Your task to perform on an android device: clear all cookies in the chrome app Image 0: 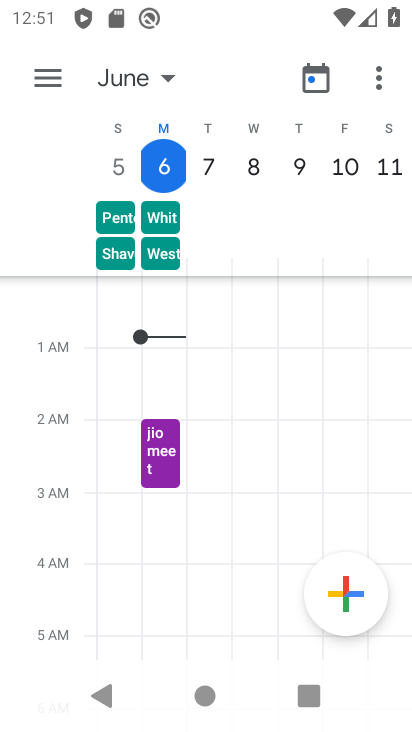
Step 0: press home button
Your task to perform on an android device: clear all cookies in the chrome app Image 1: 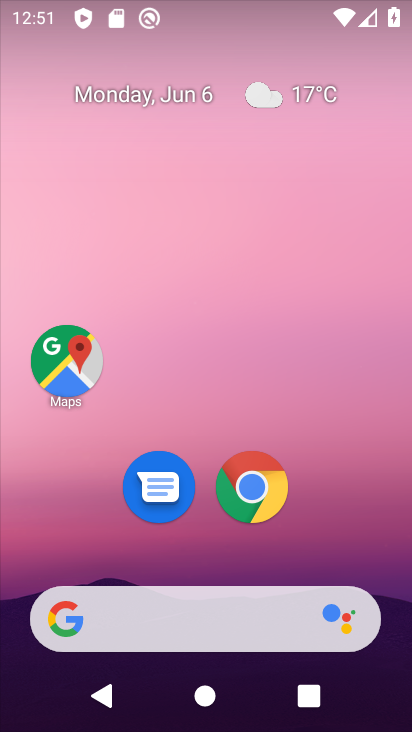
Step 1: click (271, 501)
Your task to perform on an android device: clear all cookies in the chrome app Image 2: 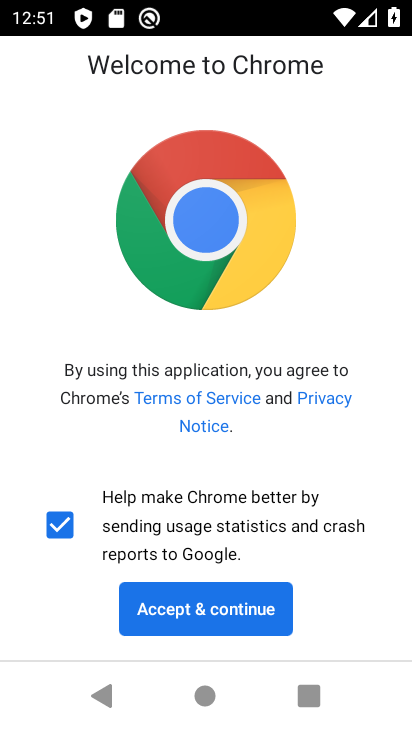
Step 2: click (254, 624)
Your task to perform on an android device: clear all cookies in the chrome app Image 3: 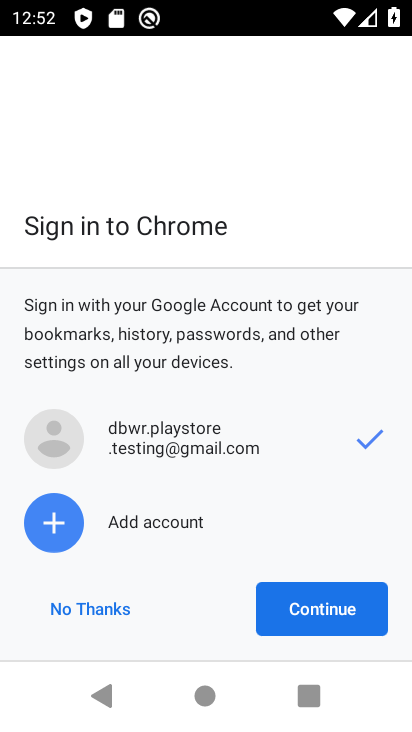
Step 3: click (353, 624)
Your task to perform on an android device: clear all cookies in the chrome app Image 4: 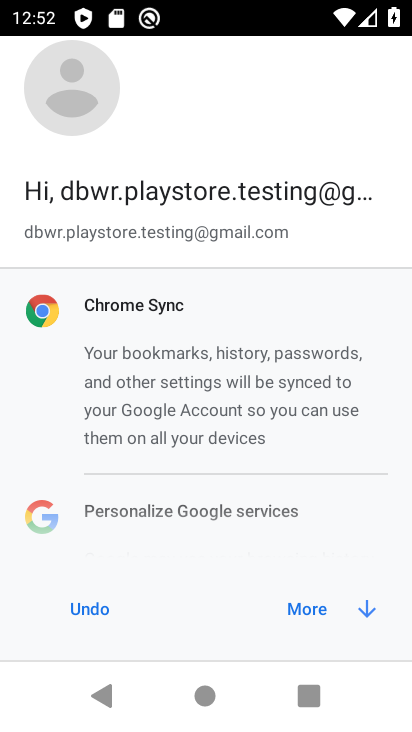
Step 4: click (336, 621)
Your task to perform on an android device: clear all cookies in the chrome app Image 5: 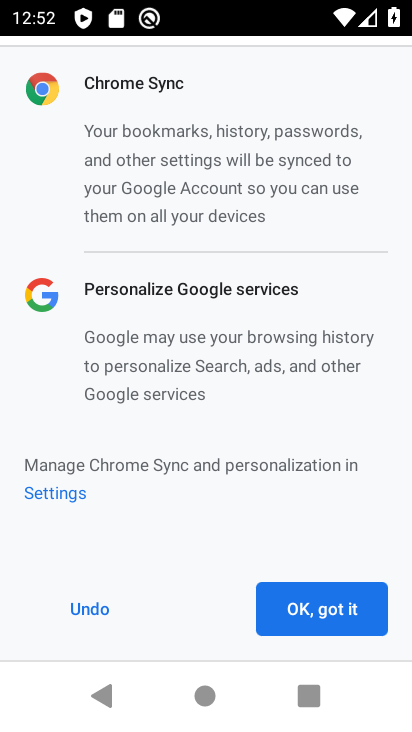
Step 5: click (336, 617)
Your task to perform on an android device: clear all cookies in the chrome app Image 6: 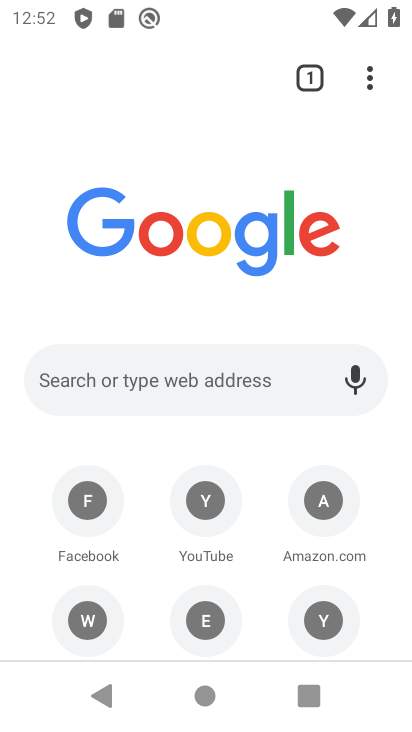
Step 6: drag from (380, 90) to (243, 567)
Your task to perform on an android device: clear all cookies in the chrome app Image 7: 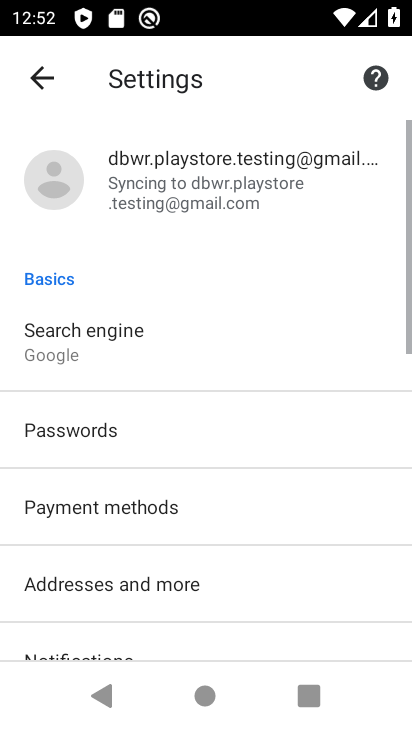
Step 7: drag from (204, 576) to (295, 267)
Your task to perform on an android device: clear all cookies in the chrome app Image 8: 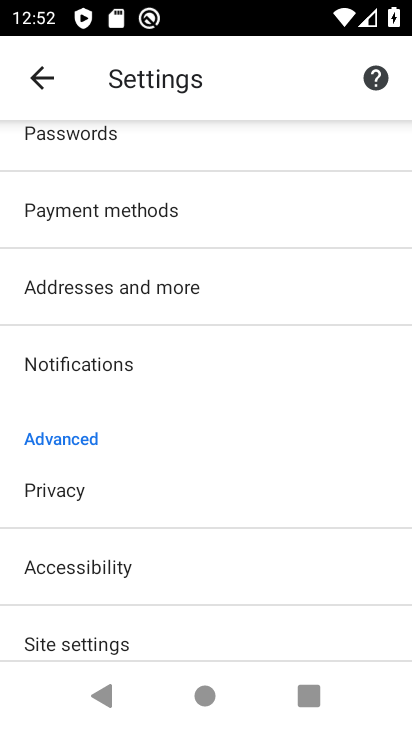
Step 8: click (100, 490)
Your task to perform on an android device: clear all cookies in the chrome app Image 9: 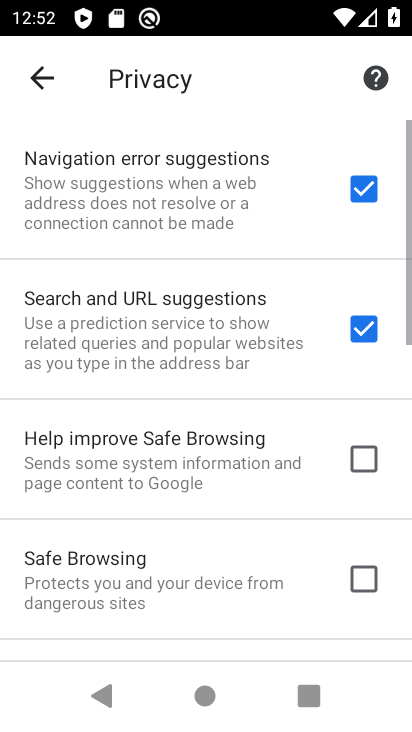
Step 9: drag from (141, 510) to (318, 0)
Your task to perform on an android device: clear all cookies in the chrome app Image 10: 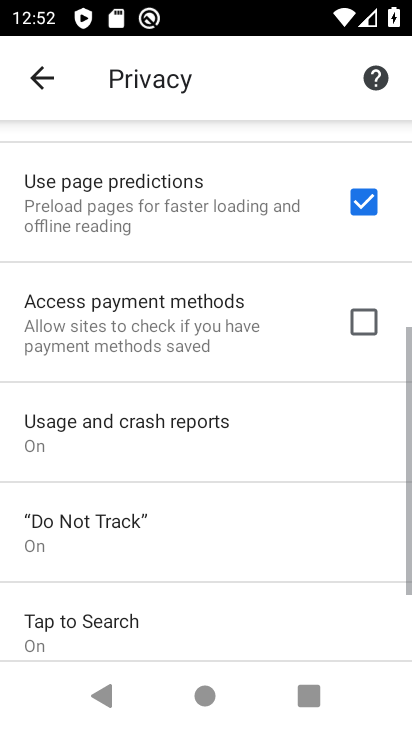
Step 10: drag from (199, 600) to (292, 183)
Your task to perform on an android device: clear all cookies in the chrome app Image 11: 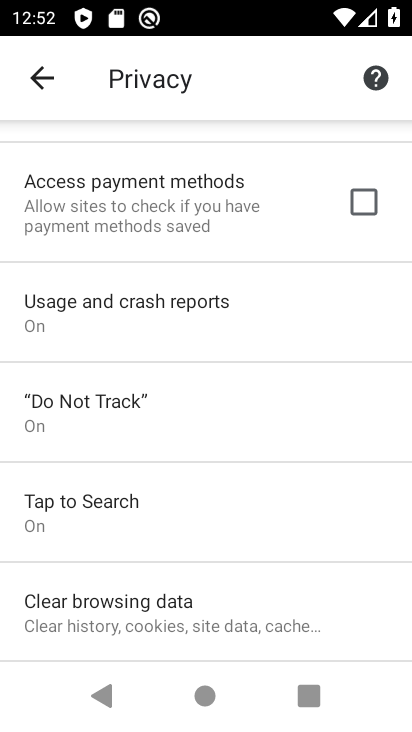
Step 11: click (201, 608)
Your task to perform on an android device: clear all cookies in the chrome app Image 12: 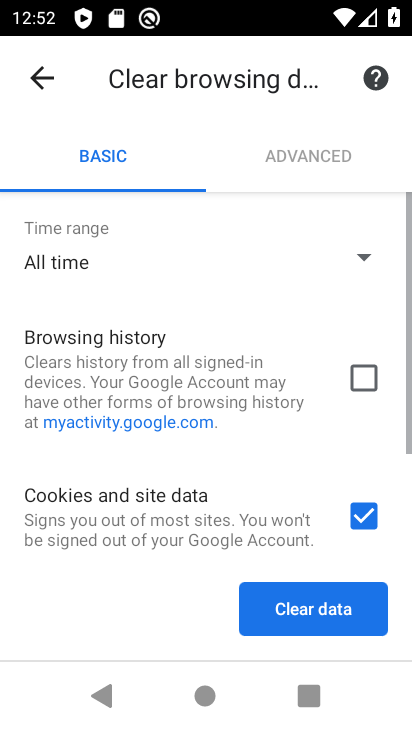
Step 12: drag from (167, 467) to (267, 148)
Your task to perform on an android device: clear all cookies in the chrome app Image 13: 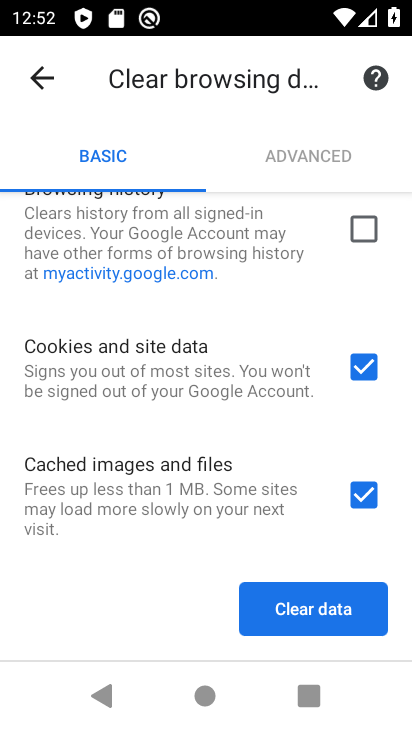
Step 13: click (355, 487)
Your task to perform on an android device: clear all cookies in the chrome app Image 14: 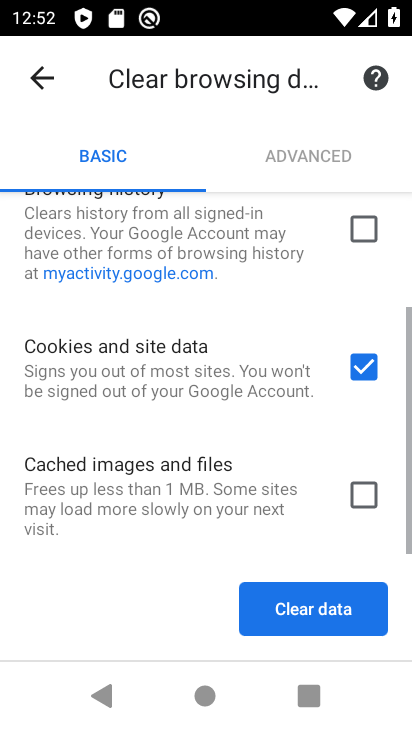
Step 14: click (297, 622)
Your task to perform on an android device: clear all cookies in the chrome app Image 15: 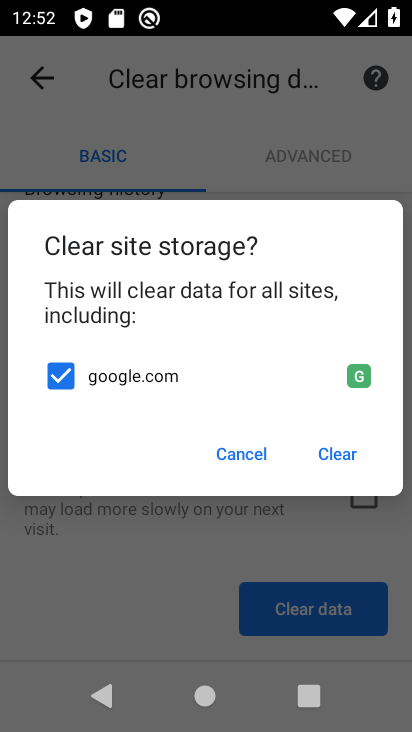
Step 15: click (345, 454)
Your task to perform on an android device: clear all cookies in the chrome app Image 16: 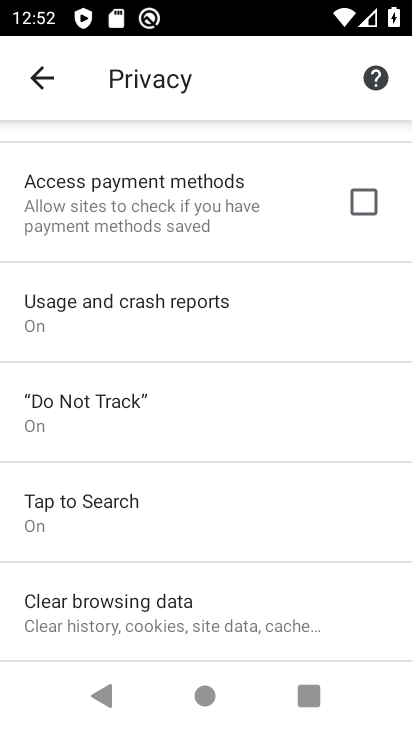
Step 16: task complete